Your task to perform on an android device: Search for vegetarian restaurants on Maps Image 0: 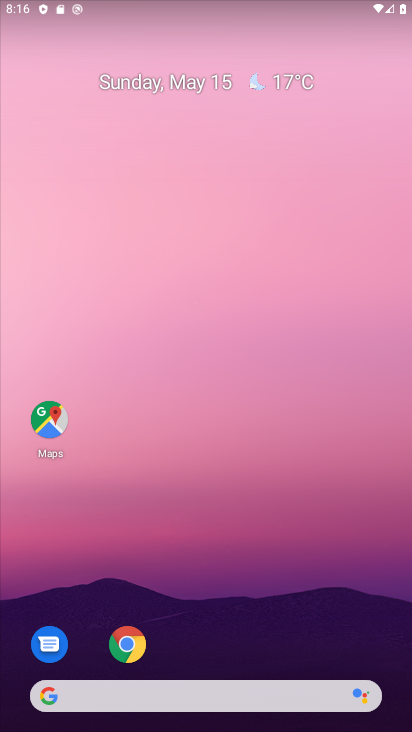
Step 0: drag from (267, 699) to (197, 343)
Your task to perform on an android device: Search for vegetarian restaurants on Maps Image 1: 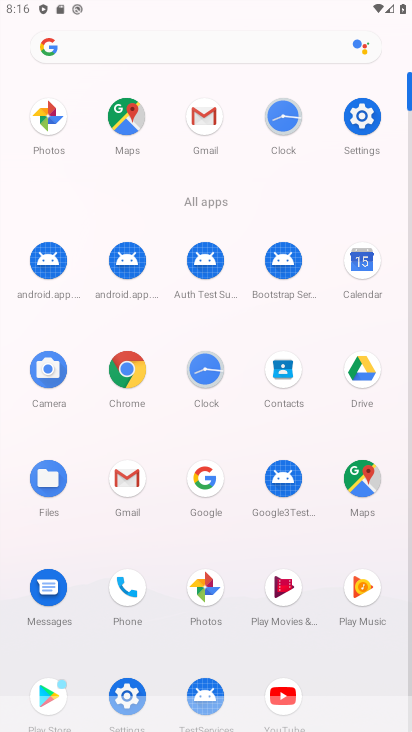
Step 1: click (374, 476)
Your task to perform on an android device: Search for vegetarian restaurants on Maps Image 2: 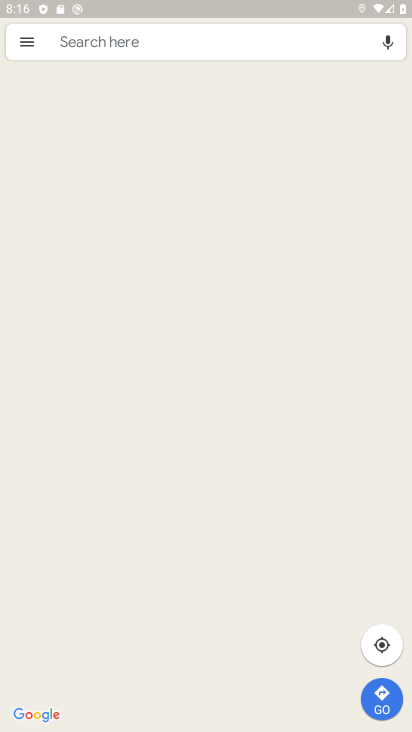
Step 2: click (137, 42)
Your task to perform on an android device: Search for vegetarian restaurants on Maps Image 3: 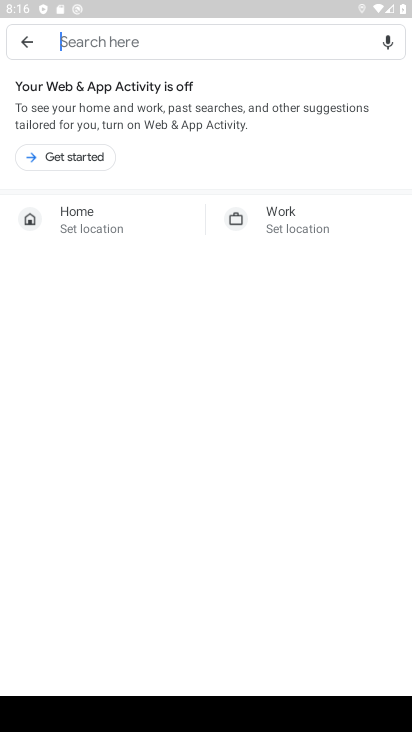
Step 3: click (85, 165)
Your task to perform on an android device: Search for vegetarian restaurants on Maps Image 4: 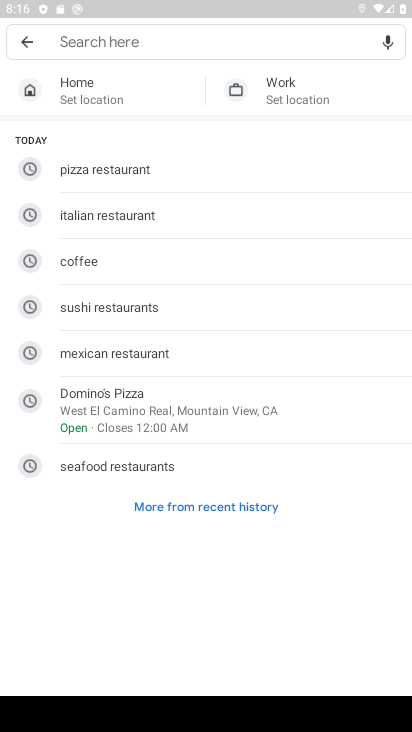
Step 4: drag from (395, 713) to (357, 601)
Your task to perform on an android device: Search for vegetarian restaurants on Maps Image 5: 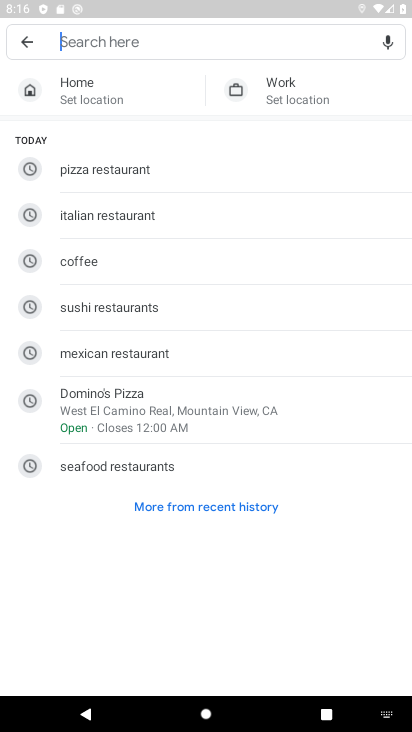
Step 5: click (389, 713)
Your task to perform on an android device: Search for vegetarian restaurants on Maps Image 6: 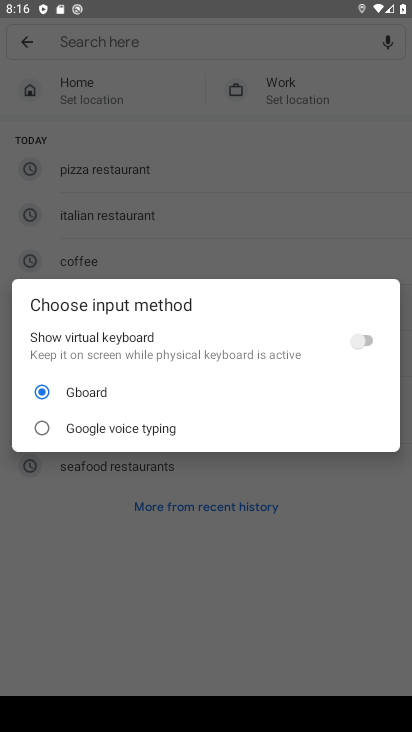
Step 6: click (359, 342)
Your task to perform on an android device: Search for vegetarian restaurants on Maps Image 7: 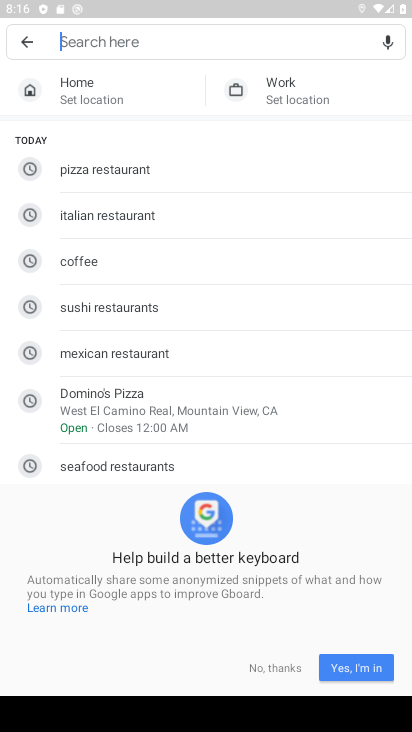
Step 7: click (259, 668)
Your task to perform on an android device: Search for vegetarian restaurants on Maps Image 8: 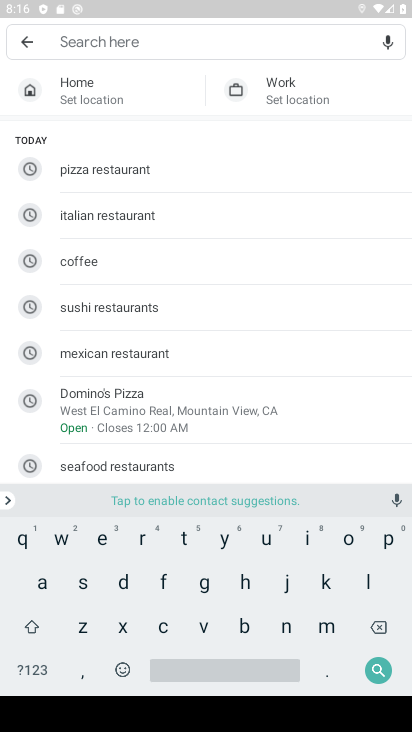
Step 8: click (129, 46)
Your task to perform on an android device: Search for vegetarian restaurants on Maps Image 9: 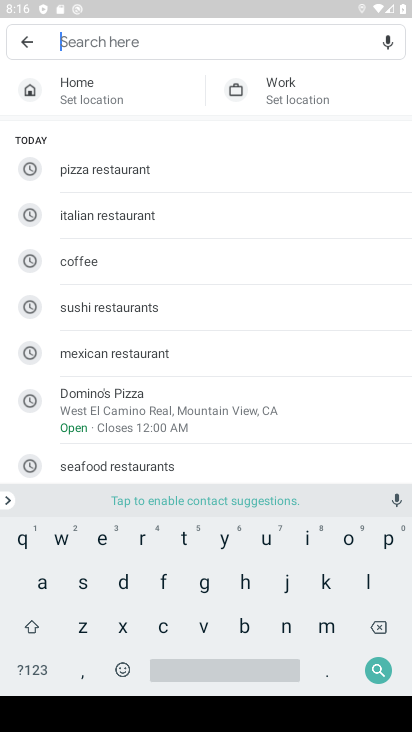
Step 9: click (203, 620)
Your task to perform on an android device: Search for vegetarian restaurants on Maps Image 10: 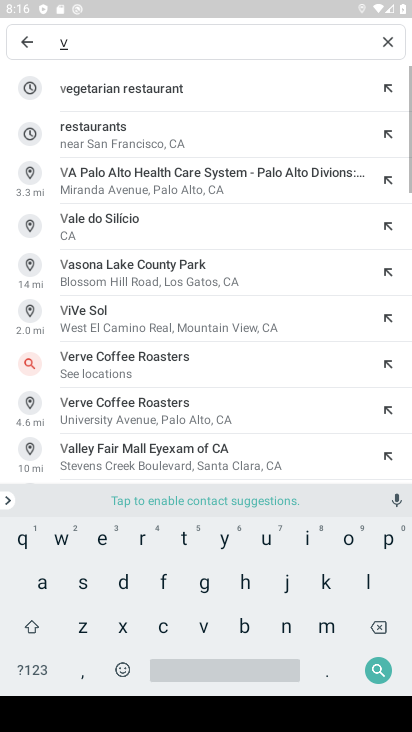
Step 10: click (113, 91)
Your task to perform on an android device: Search for vegetarian restaurants on Maps Image 11: 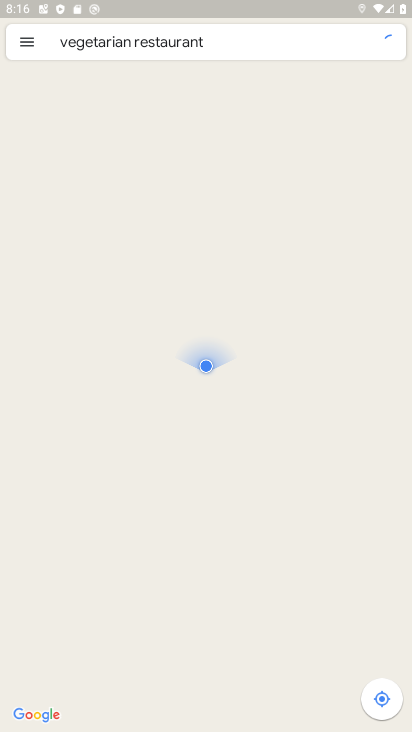
Step 11: task complete